Your task to perform on an android device: clear history in the chrome app Image 0: 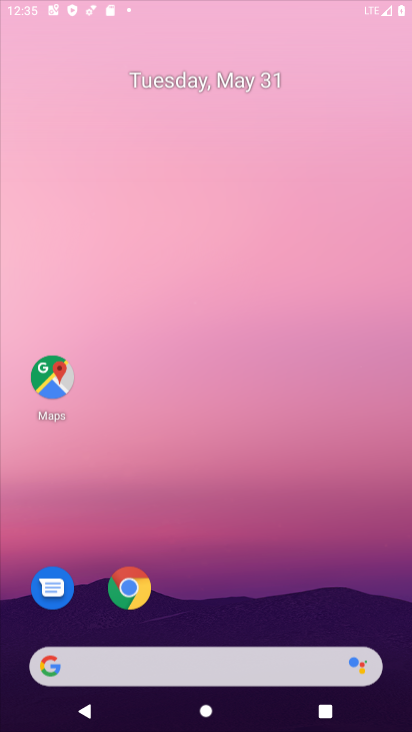
Step 0: press home button
Your task to perform on an android device: clear history in the chrome app Image 1: 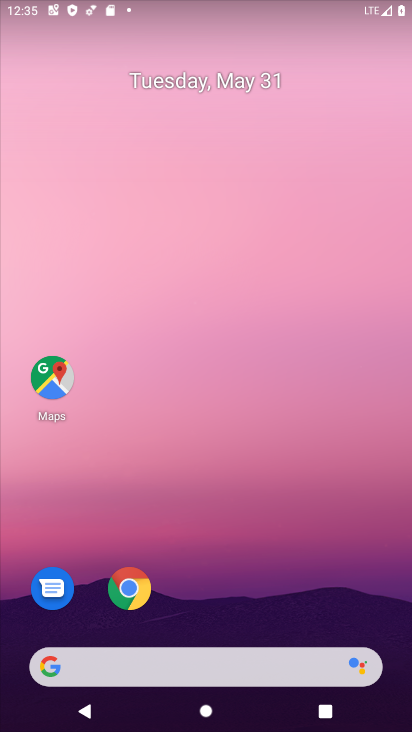
Step 1: drag from (218, 628) to (218, 64)
Your task to perform on an android device: clear history in the chrome app Image 2: 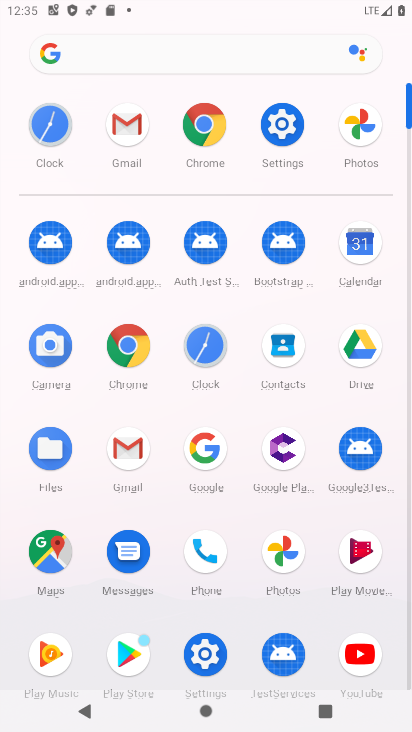
Step 2: click (132, 441)
Your task to perform on an android device: clear history in the chrome app Image 3: 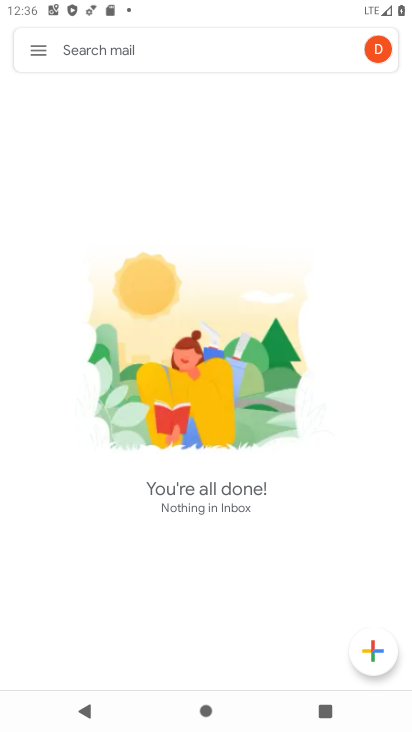
Step 3: press home button
Your task to perform on an android device: clear history in the chrome app Image 4: 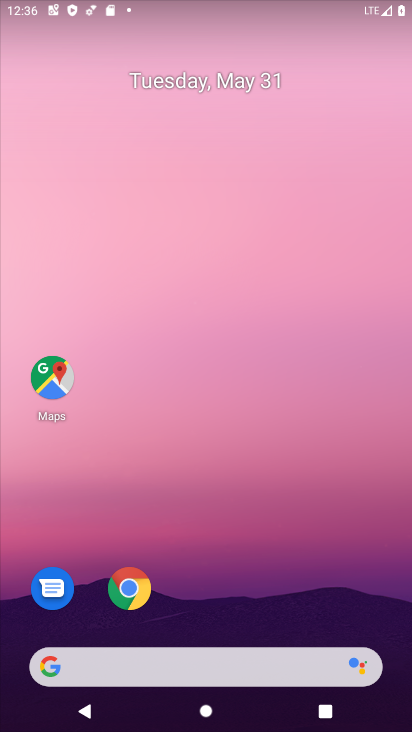
Step 4: click (125, 585)
Your task to perform on an android device: clear history in the chrome app Image 5: 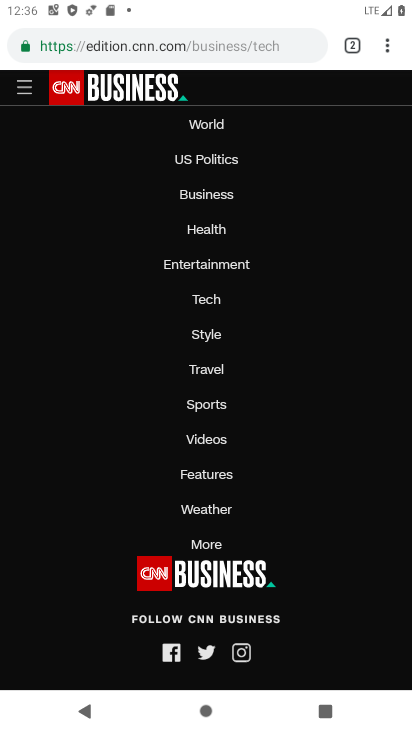
Step 5: click (381, 46)
Your task to perform on an android device: clear history in the chrome app Image 6: 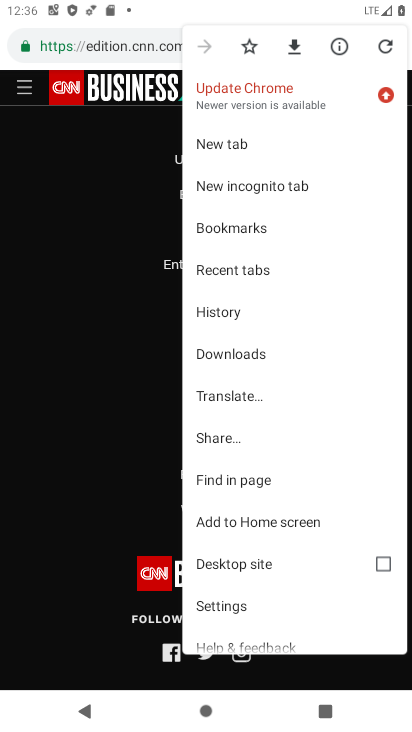
Step 6: click (258, 308)
Your task to perform on an android device: clear history in the chrome app Image 7: 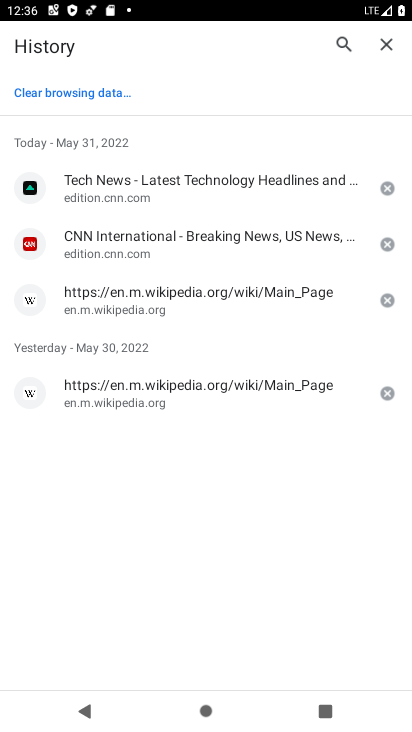
Step 7: click (72, 88)
Your task to perform on an android device: clear history in the chrome app Image 8: 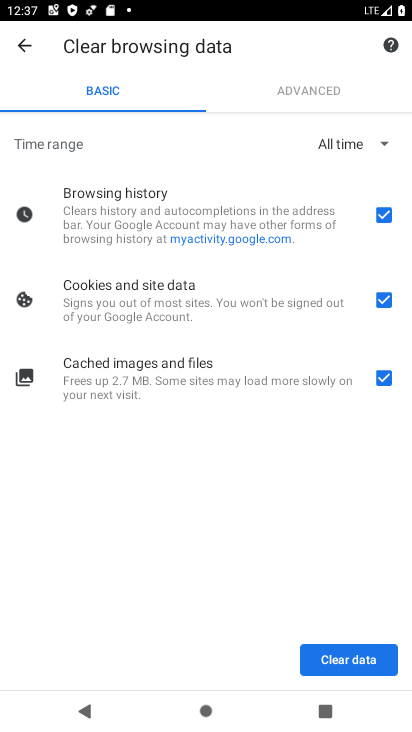
Step 8: click (352, 656)
Your task to perform on an android device: clear history in the chrome app Image 9: 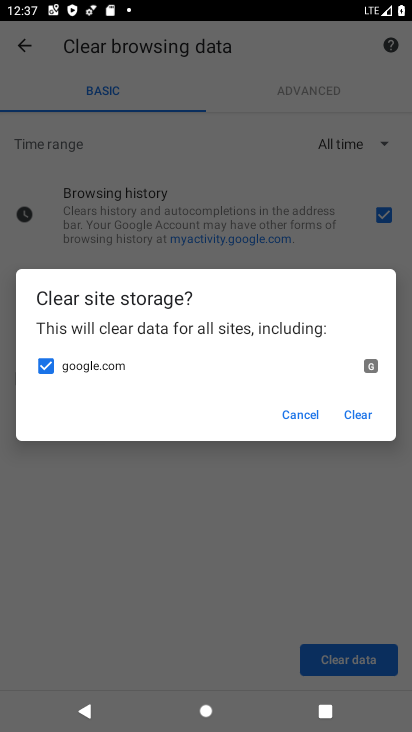
Step 9: click (347, 412)
Your task to perform on an android device: clear history in the chrome app Image 10: 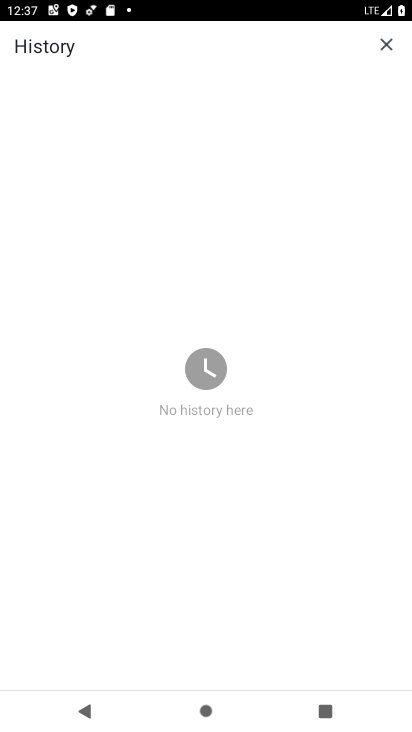
Step 10: task complete